Your task to perform on an android device: search for starred emails in the gmail app Image 0: 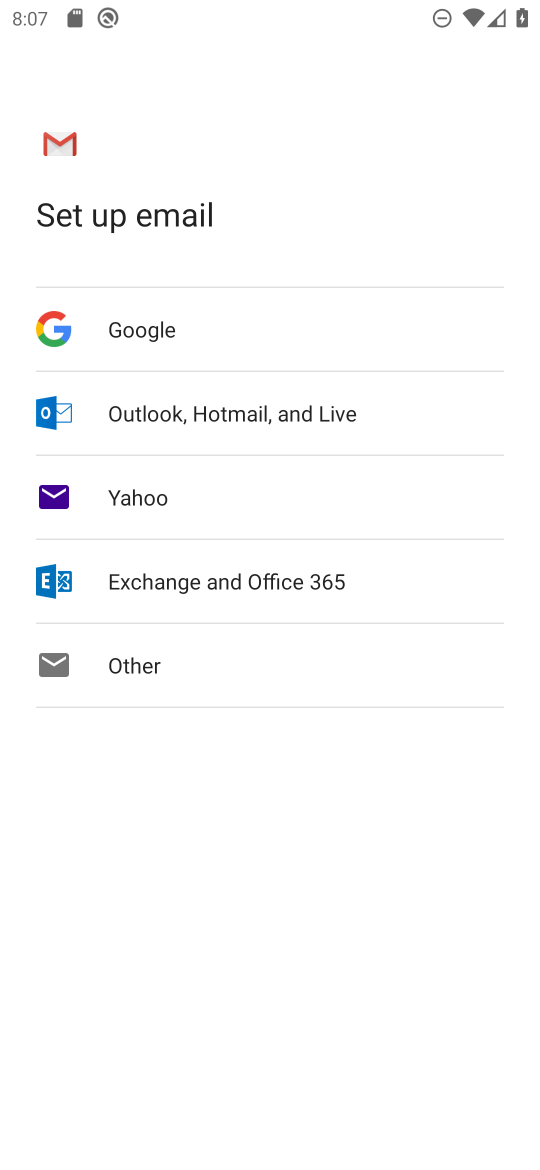
Step 0: press home button
Your task to perform on an android device: search for starred emails in the gmail app Image 1: 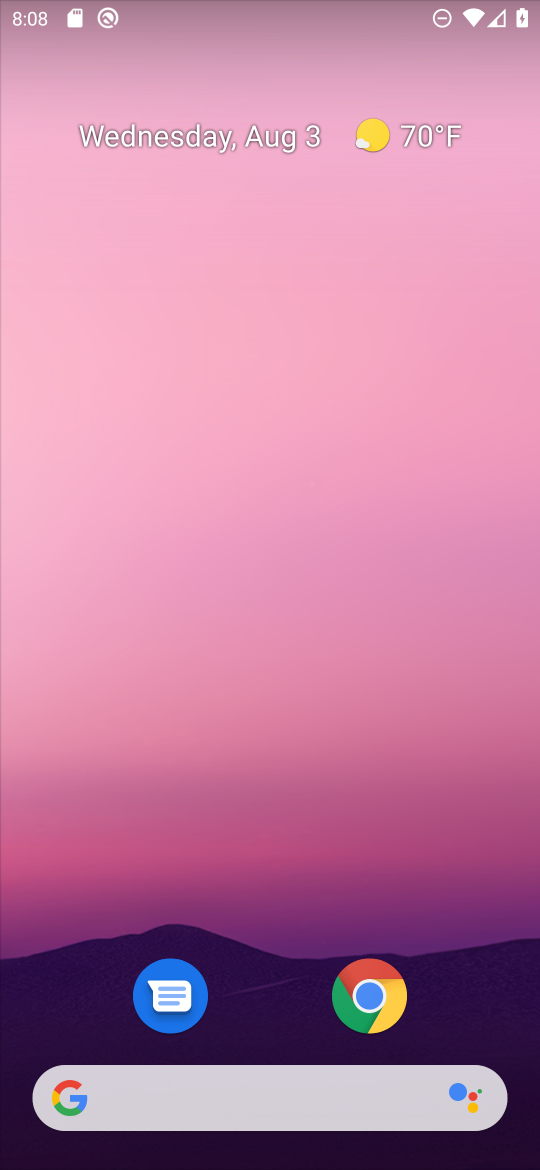
Step 1: drag from (300, 873) to (307, 0)
Your task to perform on an android device: search for starred emails in the gmail app Image 2: 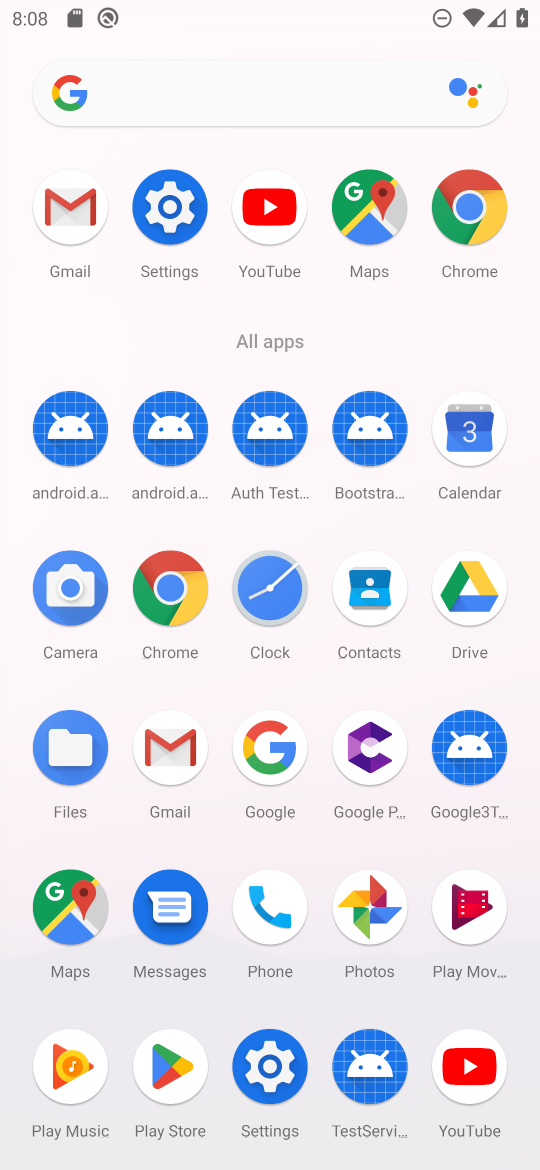
Step 2: click (176, 757)
Your task to perform on an android device: search for starred emails in the gmail app Image 3: 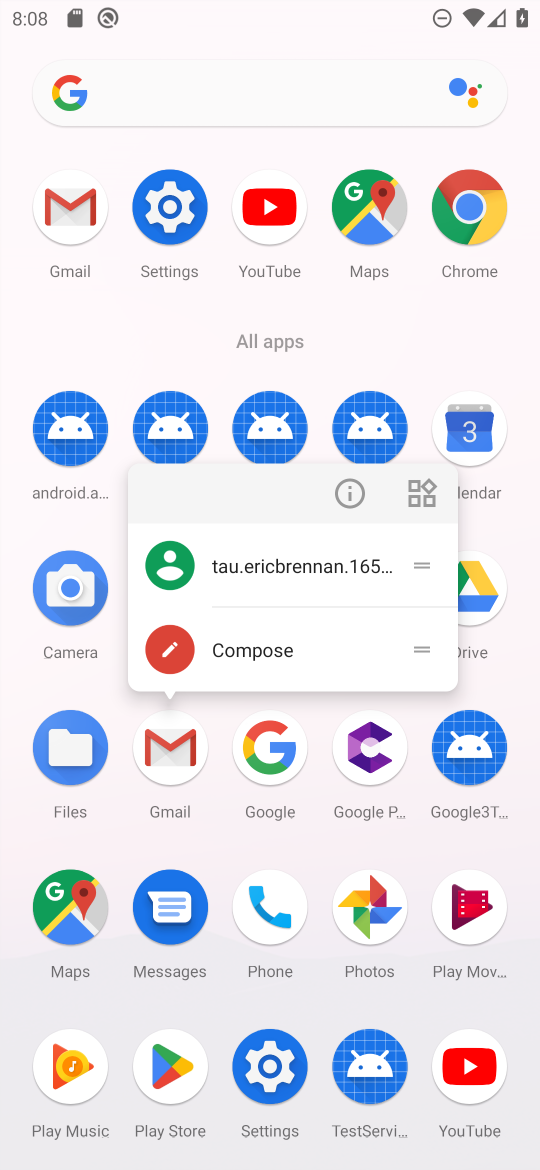
Step 3: click (176, 757)
Your task to perform on an android device: search for starred emails in the gmail app Image 4: 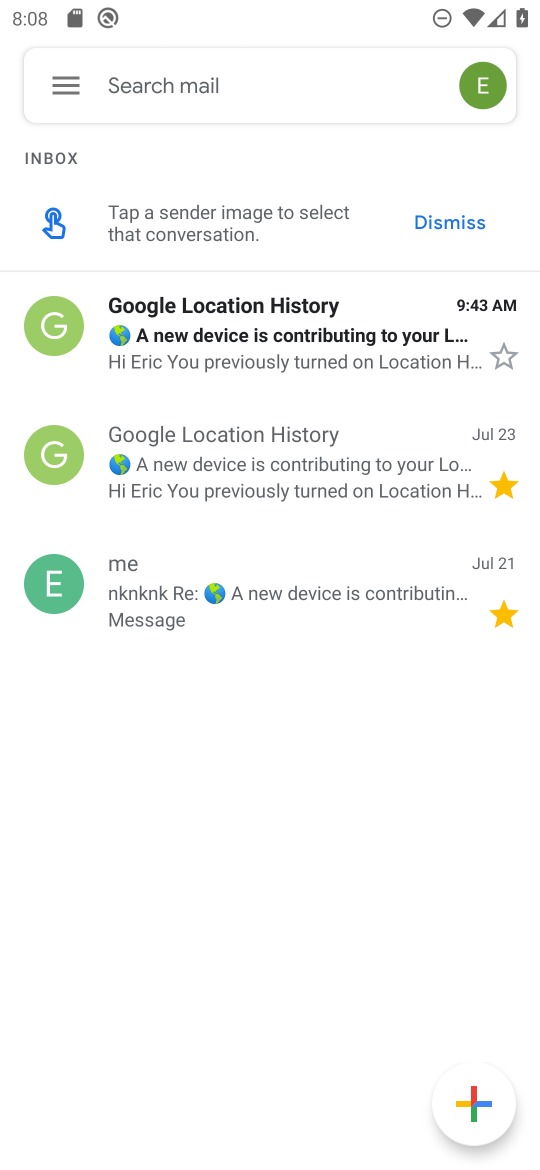
Step 4: click (61, 88)
Your task to perform on an android device: search for starred emails in the gmail app Image 5: 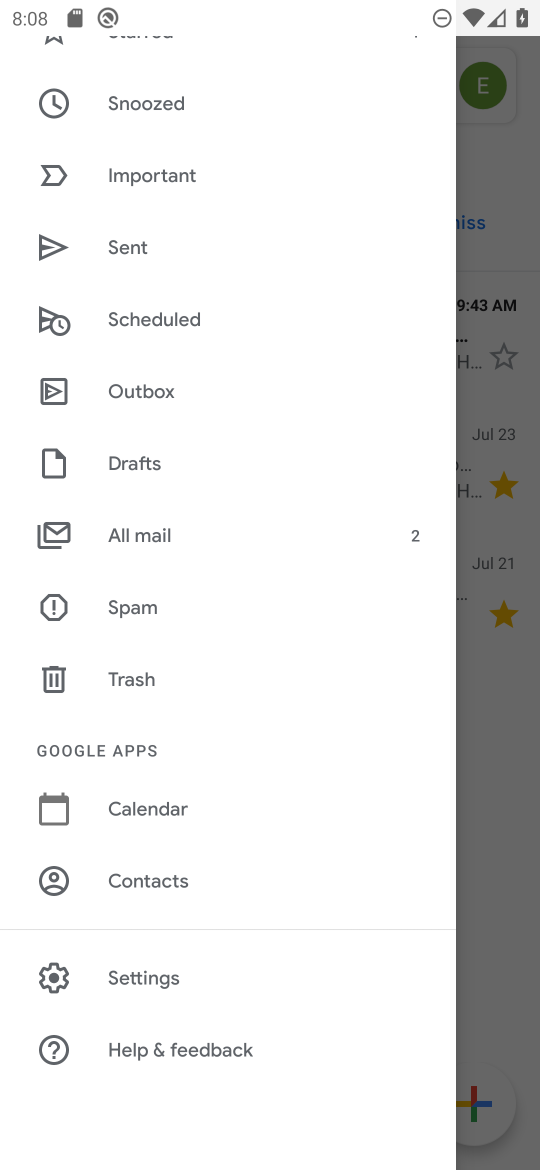
Step 5: drag from (259, 249) to (306, 534)
Your task to perform on an android device: search for starred emails in the gmail app Image 6: 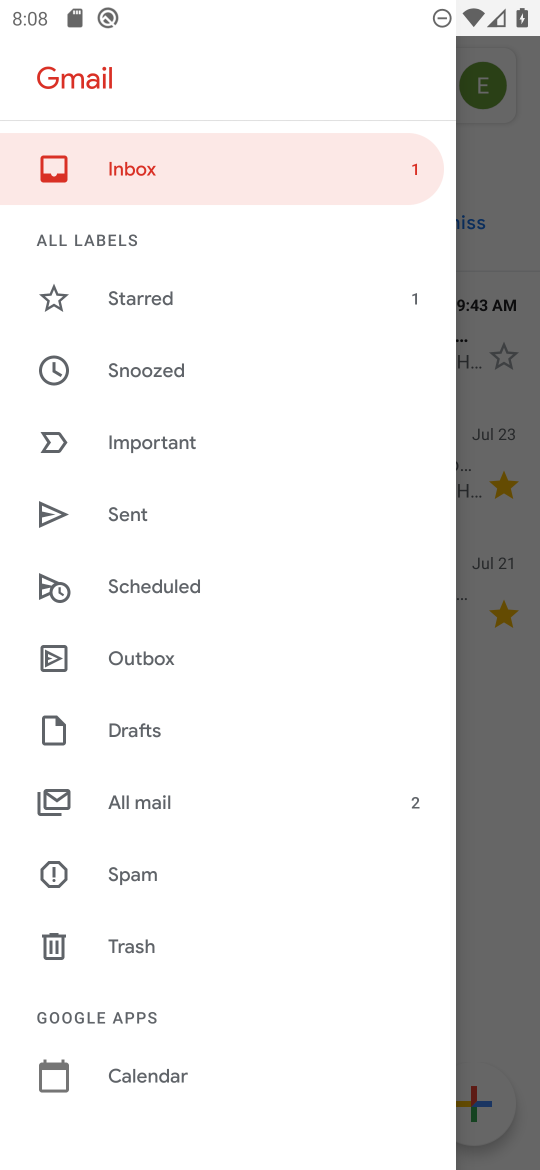
Step 6: click (150, 294)
Your task to perform on an android device: search for starred emails in the gmail app Image 7: 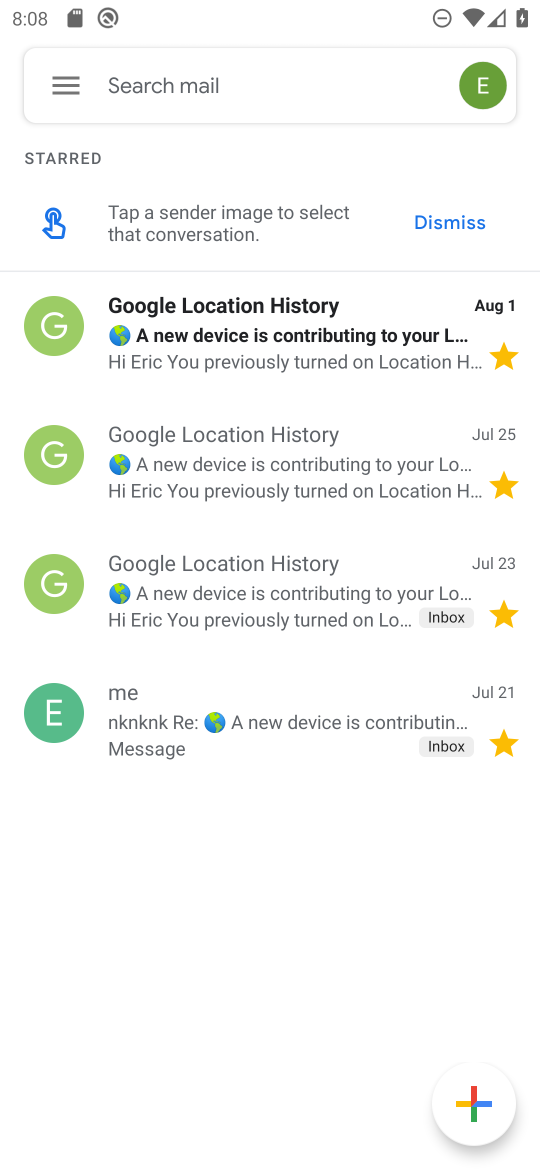
Step 7: task complete